Your task to perform on an android device: change alarm snooze length Image 0: 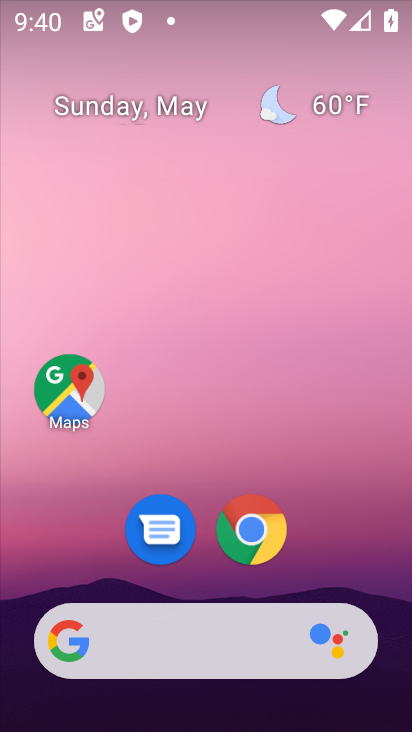
Step 0: drag from (362, 558) to (406, 154)
Your task to perform on an android device: change alarm snooze length Image 1: 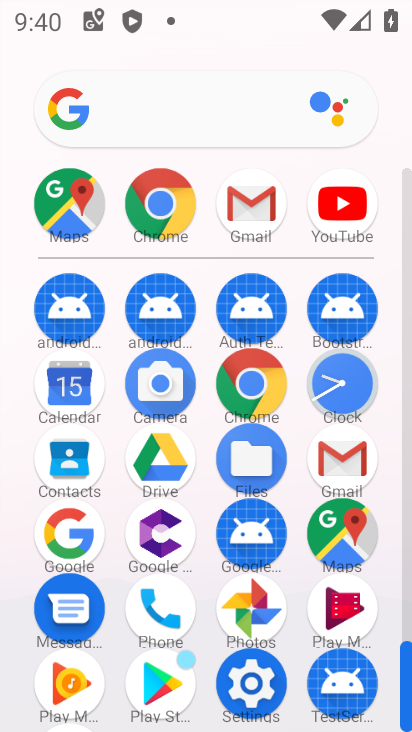
Step 1: click (345, 376)
Your task to perform on an android device: change alarm snooze length Image 2: 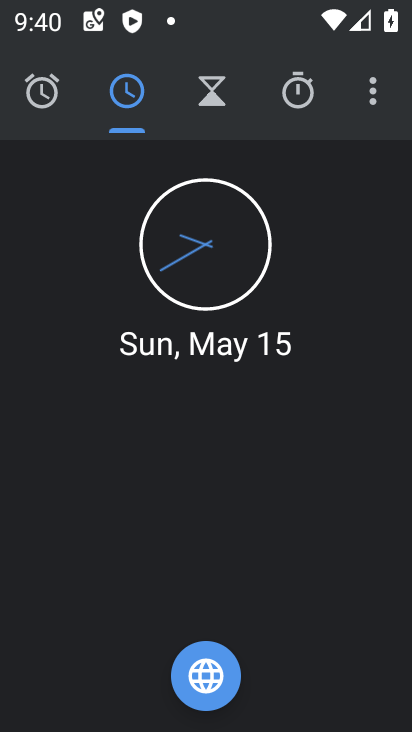
Step 2: click (377, 102)
Your task to perform on an android device: change alarm snooze length Image 3: 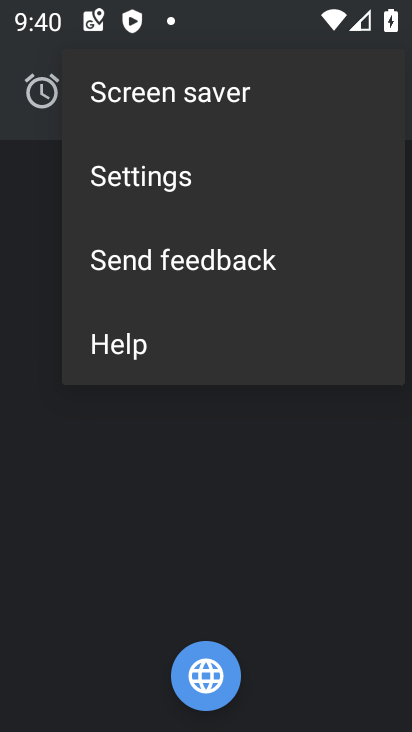
Step 3: click (187, 182)
Your task to perform on an android device: change alarm snooze length Image 4: 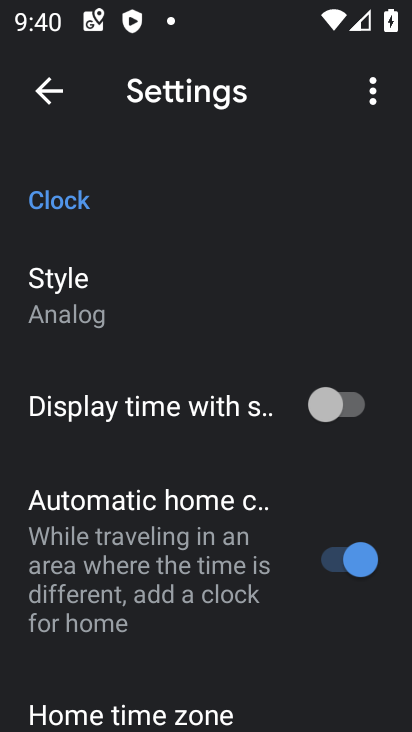
Step 4: drag from (290, 650) to (287, 431)
Your task to perform on an android device: change alarm snooze length Image 5: 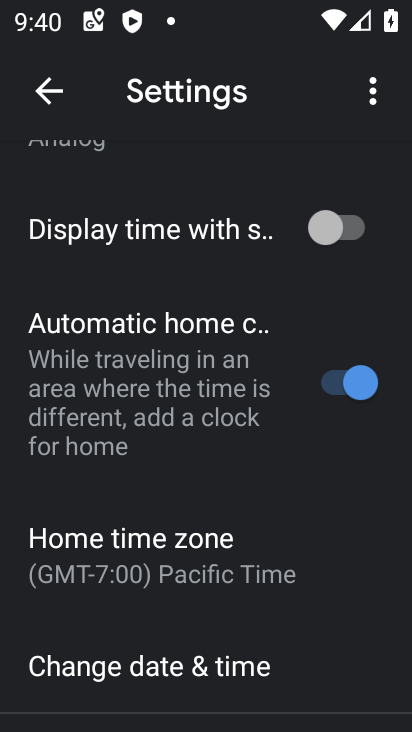
Step 5: drag from (301, 645) to (301, 520)
Your task to perform on an android device: change alarm snooze length Image 6: 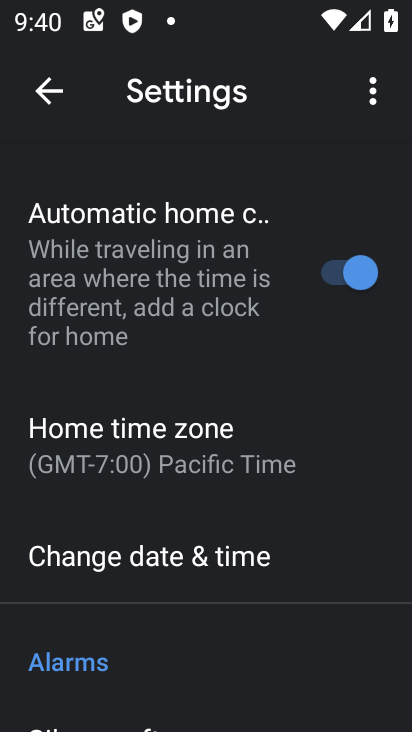
Step 6: drag from (324, 651) to (333, 512)
Your task to perform on an android device: change alarm snooze length Image 7: 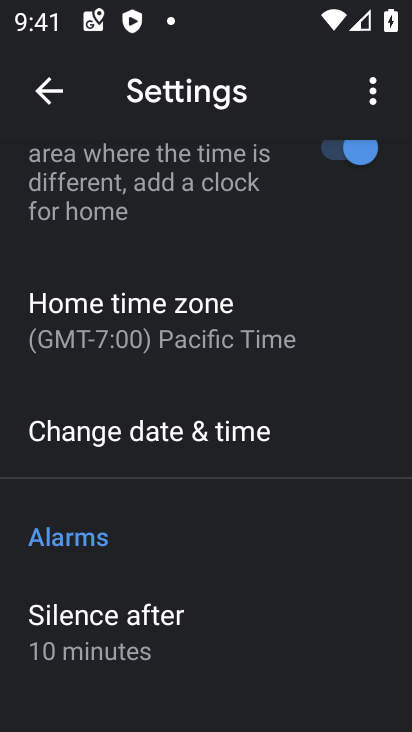
Step 7: drag from (341, 662) to (353, 493)
Your task to perform on an android device: change alarm snooze length Image 8: 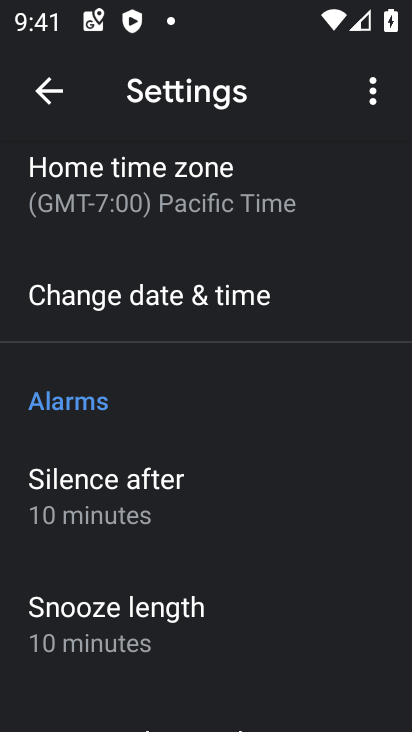
Step 8: drag from (317, 636) to (325, 531)
Your task to perform on an android device: change alarm snooze length Image 9: 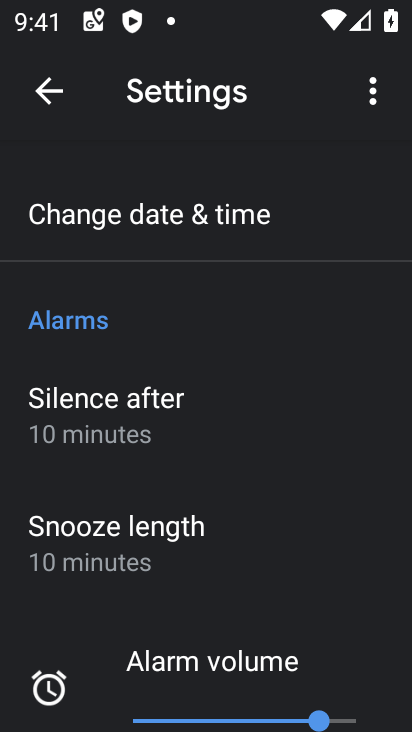
Step 9: click (168, 554)
Your task to perform on an android device: change alarm snooze length Image 10: 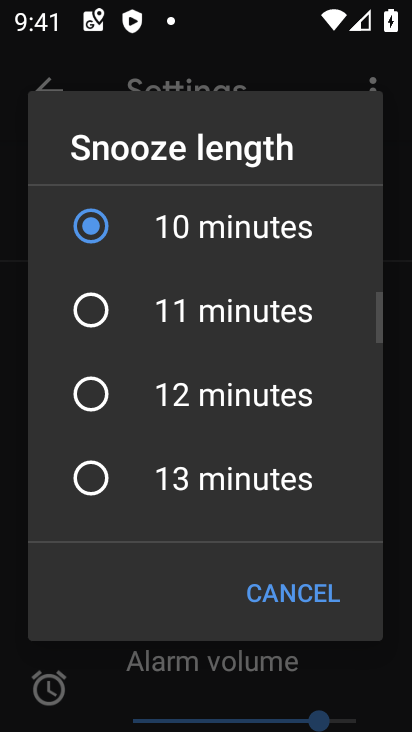
Step 10: click (103, 400)
Your task to perform on an android device: change alarm snooze length Image 11: 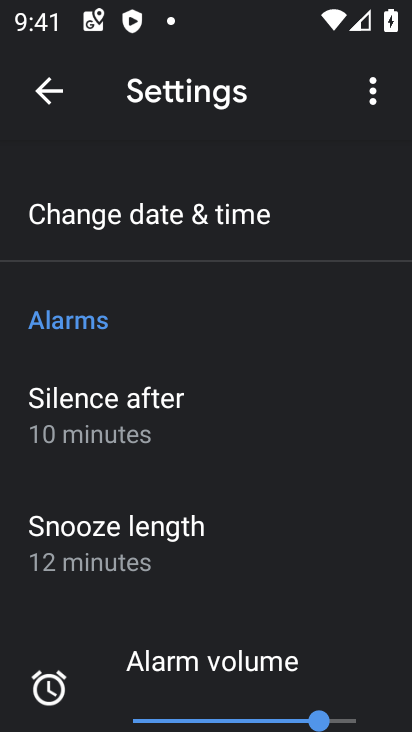
Step 11: task complete